Your task to perform on an android device: Do I have any events tomorrow? Image 0: 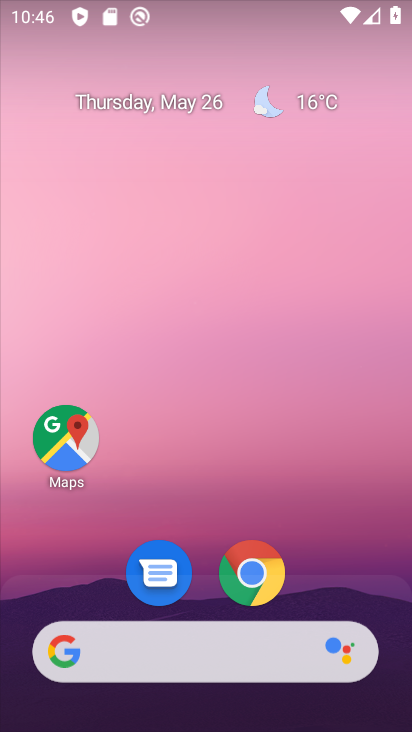
Step 0: drag from (354, 495) to (305, 184)
Your task to perform on an android device: Do I have any events tomorrow? Image 1: 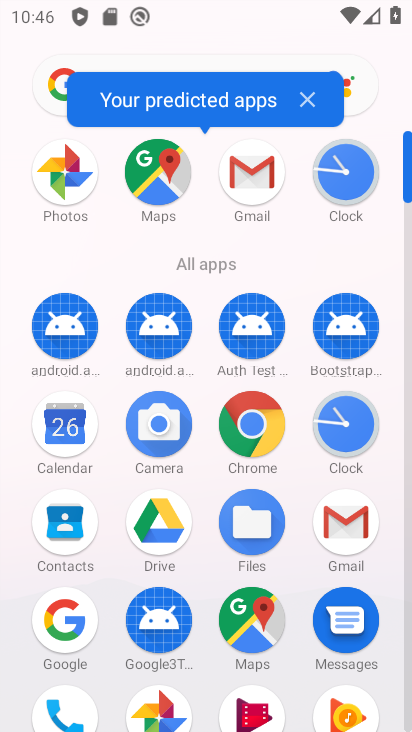
Step 1: click (54, 433)
Your task to perform on an android device: Do I have any events tomorrow? Image 2: 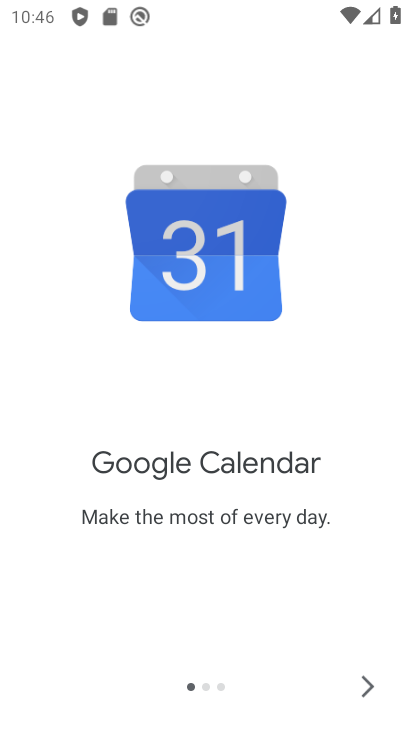
Step 2: click (381, 685)
Your task to perform on an android device: Do I have any events tomorrow? Image 3: 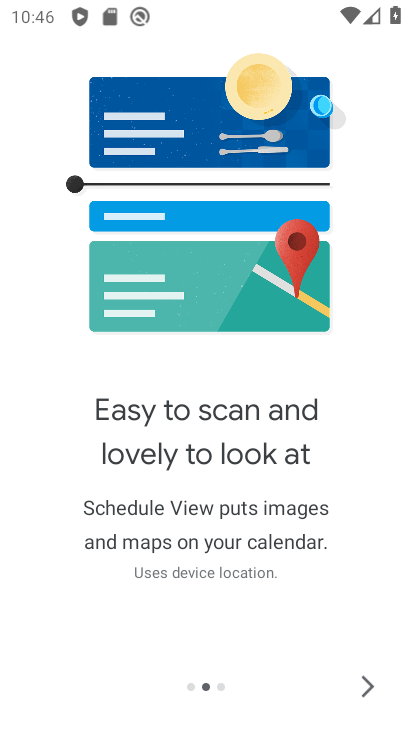
Step 3: click (381, 685)
Your task to perform on an android device: Do I have any events tomorrow? Image 4: 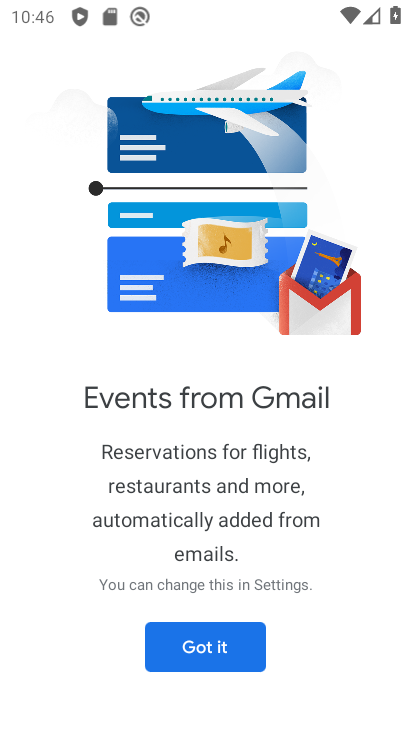
Step 4: click (215, 655)
Your task to perform on an android device: Do I have any events tomorrow? Image 5: 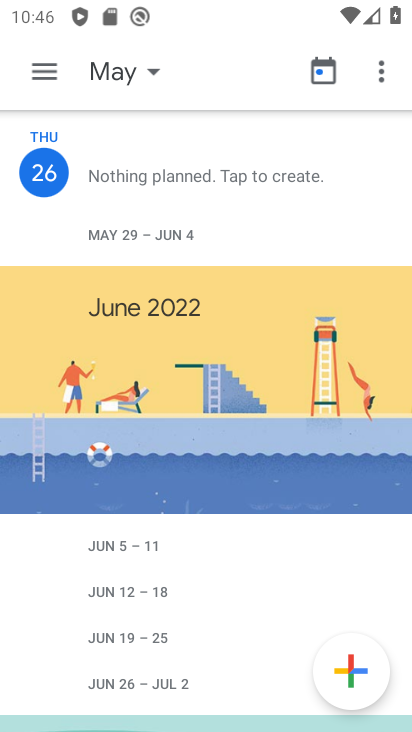
Step 5: click (50, 69)
Your task to perform on an android device: Do I have any events tomorrow? Image 6: 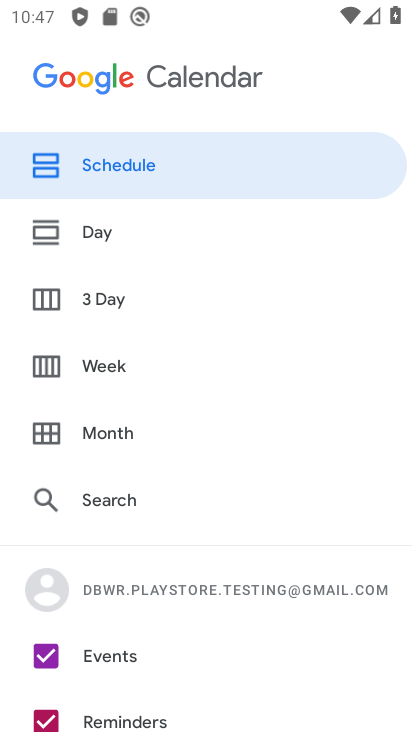
Step 6: click (127, 232)
Your task to perform on an android device: Do I have any events tomorrow? Image 7: 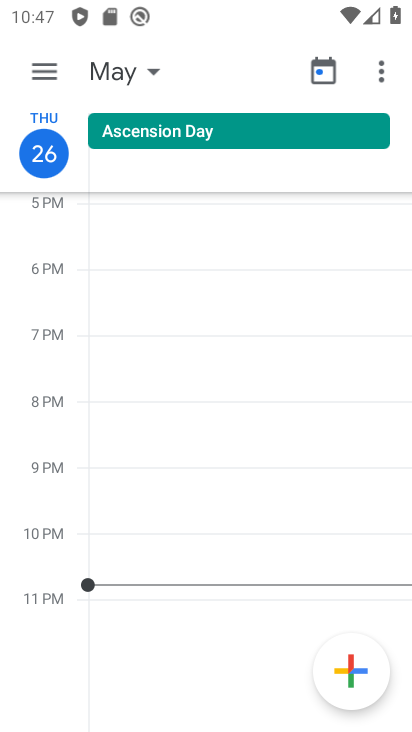
Step 7: click (129, 72)
Your task to perform on an android device: Do I have any events tomorrow? Image 8: 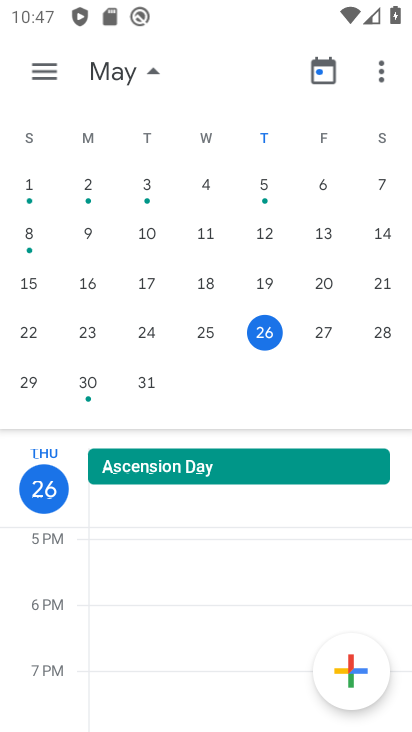
Step 8: click (323, 327)
Your task to perform on an android device: Do I have any events tomorrow? Image 9: 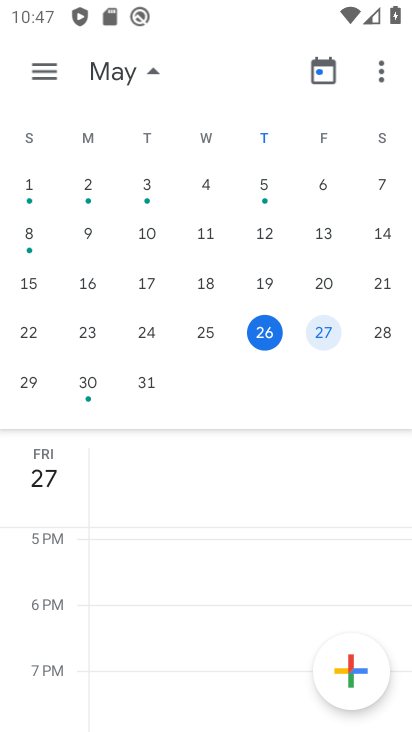
Step 9: task complete